Your task to perform on an android device: turn notification dots on Image 0: 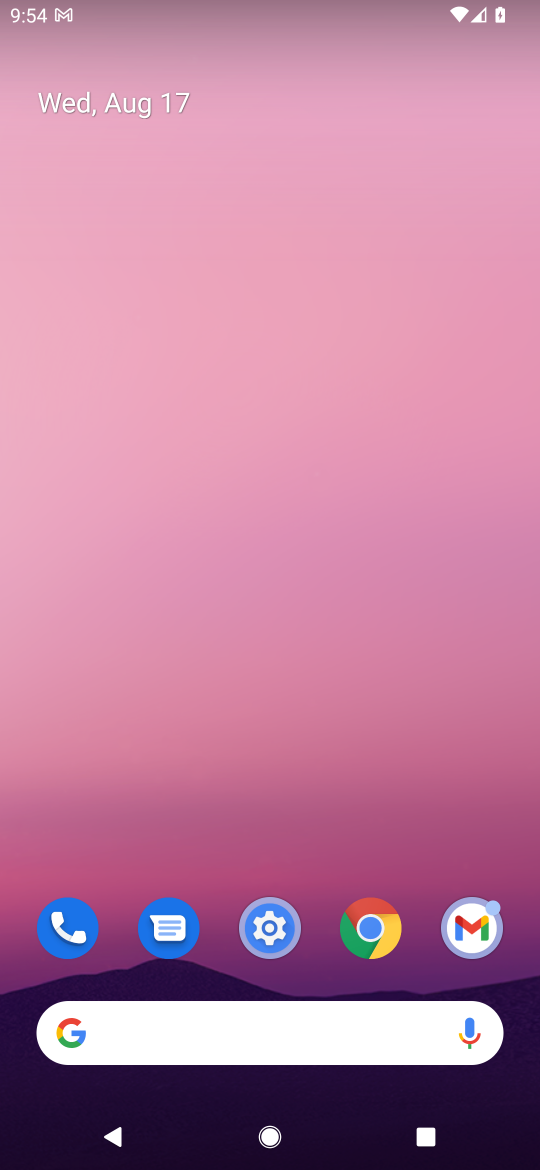
Step 0: drag from (317, 854) to (288, 191)
Your task to perform on an android device: turn notification dots on Image 1: 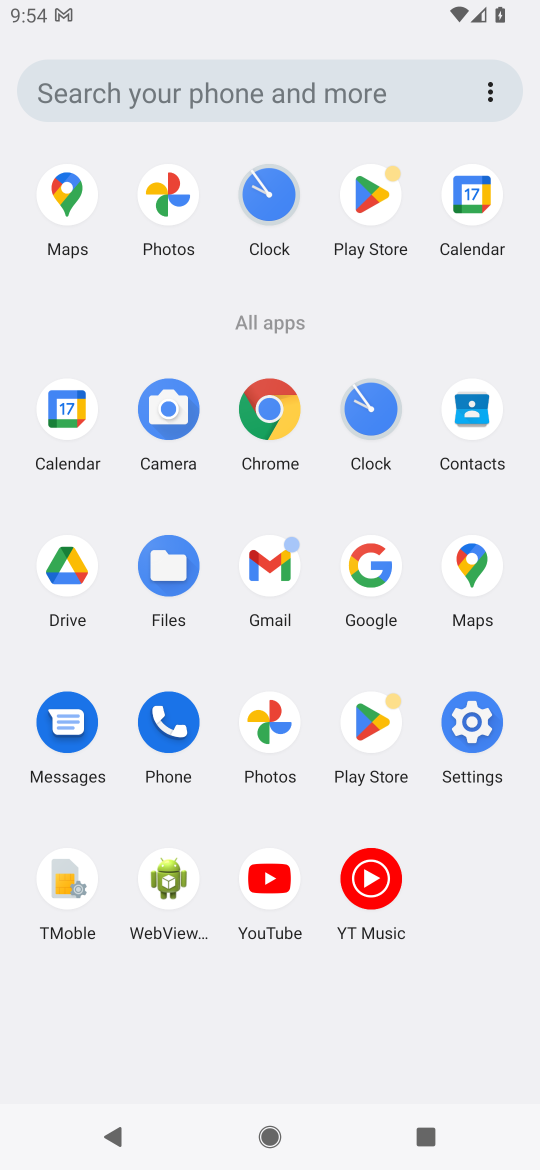
Step 1: click (495, 751)
Your task to perform on an android device: turn notification dots on Image 2: 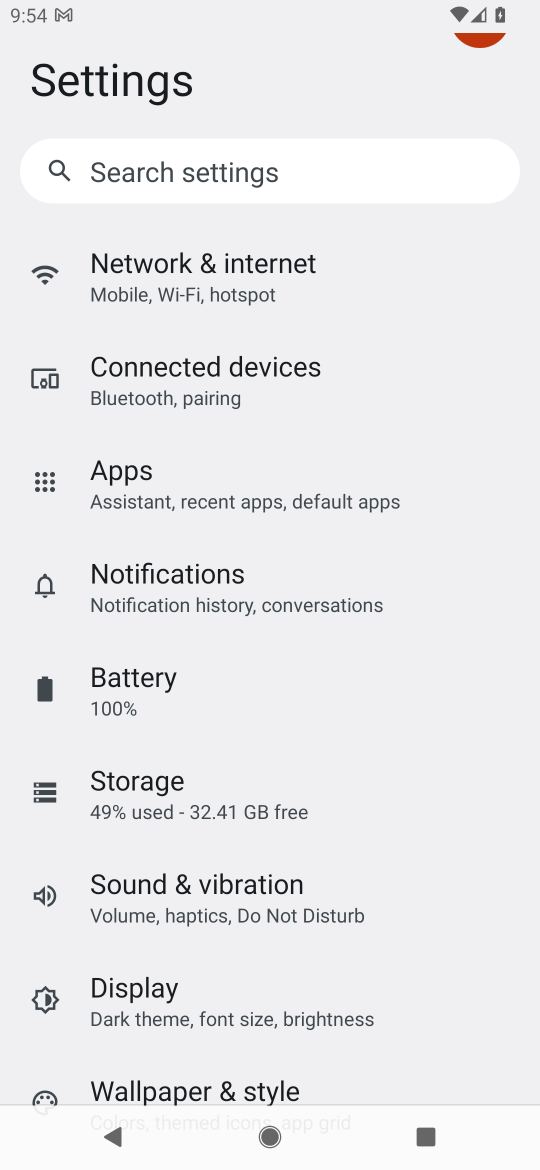
Step 2: click (272, 597)
Your task to perform on an android device: turn notification dots on Image 3: 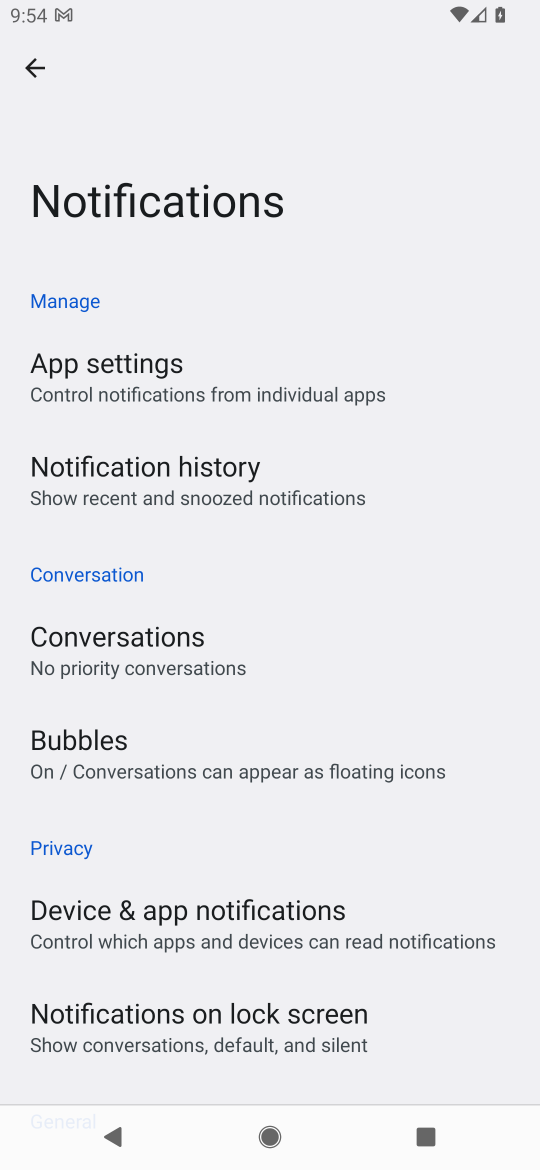
Step 3: task complete